Your task to perform on an android device: see tabs open on other devices in the chrome app Image 0: 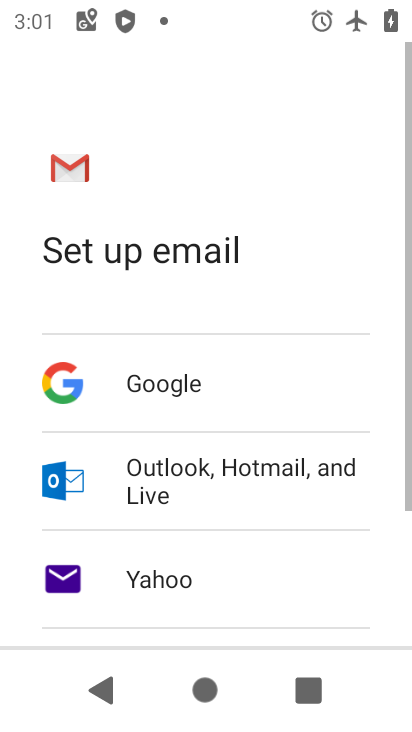
Step 0: press home button
Your task to perform on an android device: see tabs open on other devices in the chrome app Image 1: 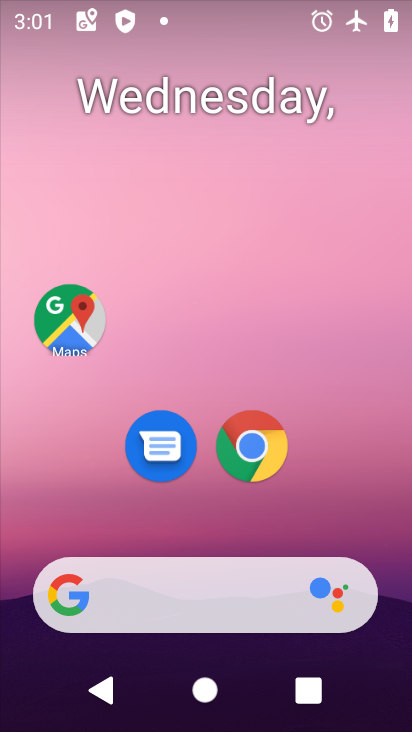
Step 1: click (248, 446)
Your task to perform on an android device: see tabs open on other devices in the chrome app Image 2: 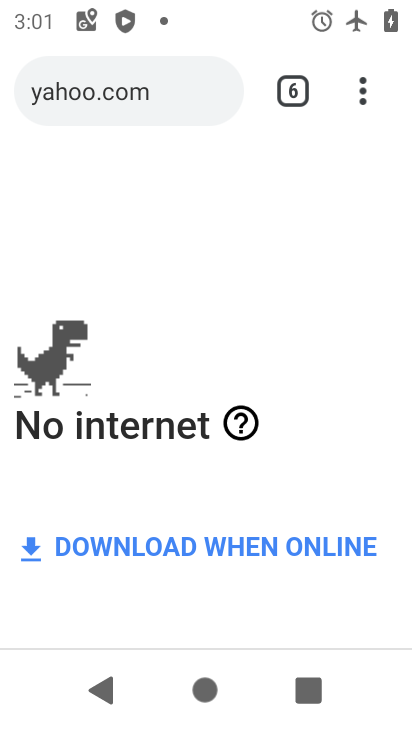
Step 2: task complete